Your task to perform on an android device: Play the latest video from the Wall Street Journal Image 0: 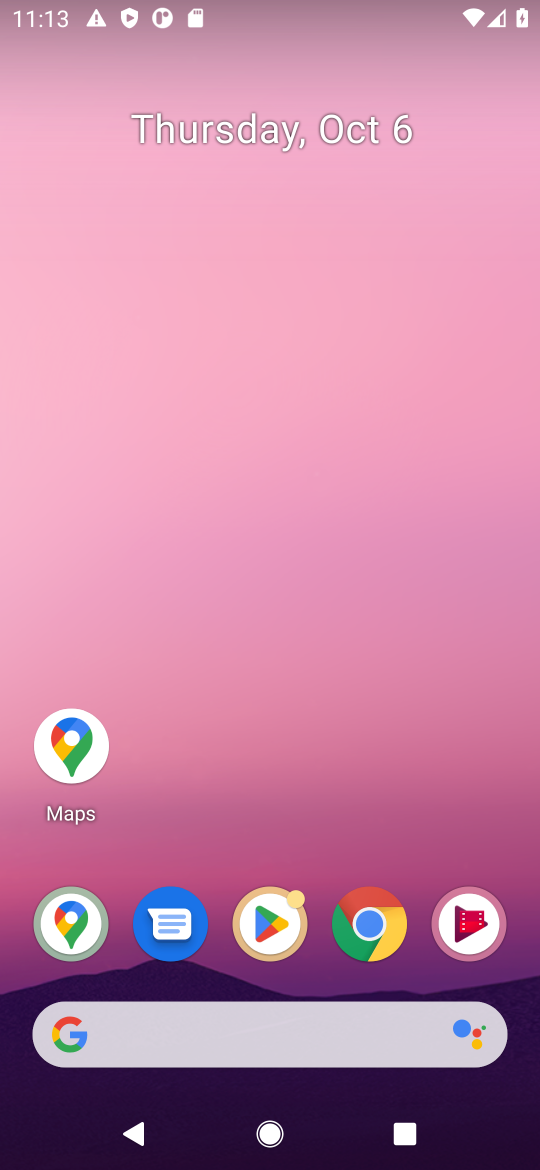
Step 0: click (365, 930)
Your task to perform on an android device: Play the latest video from the Wall Street Journal Image 1: 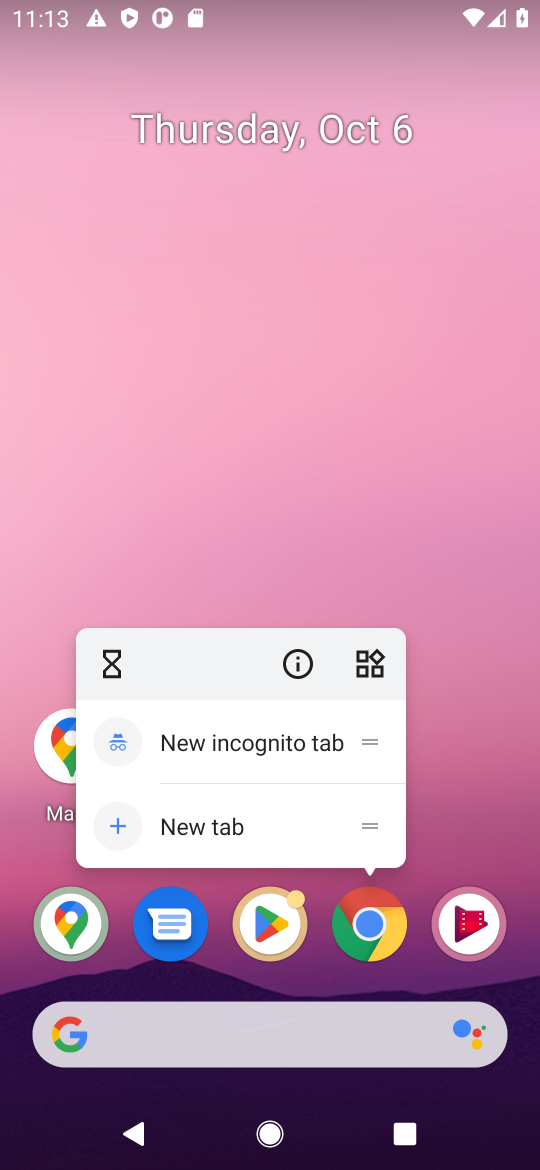
Step 1: click (365, 930)
Your task to perform on an android device: Play the latest video from the Wall Street Journal Image 2: 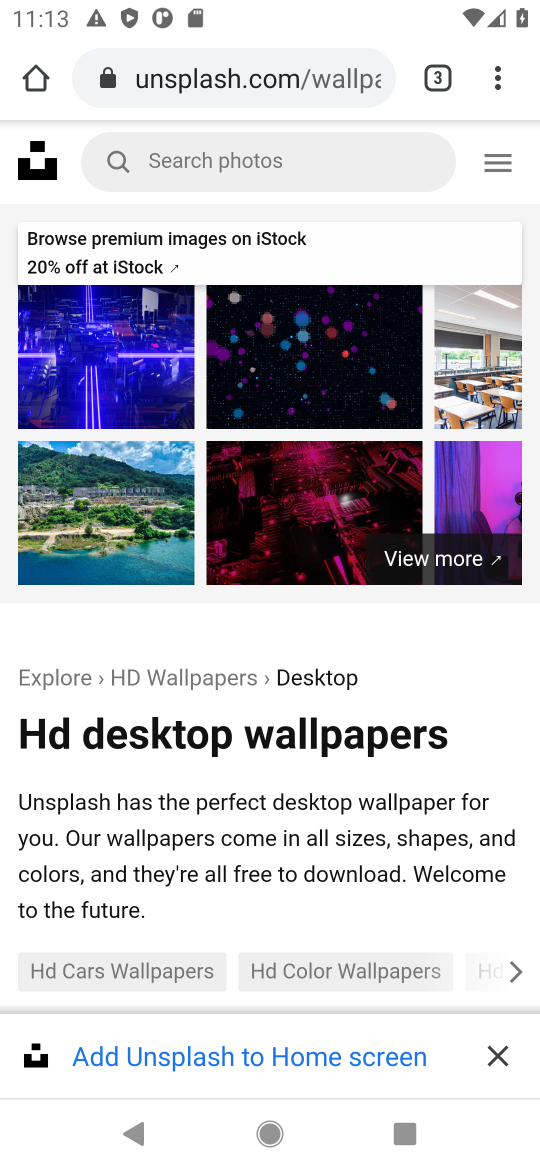
Step 2: press home button
Your task to perform on an android device: Play the latest video from the Wall Street Journal Image 3: 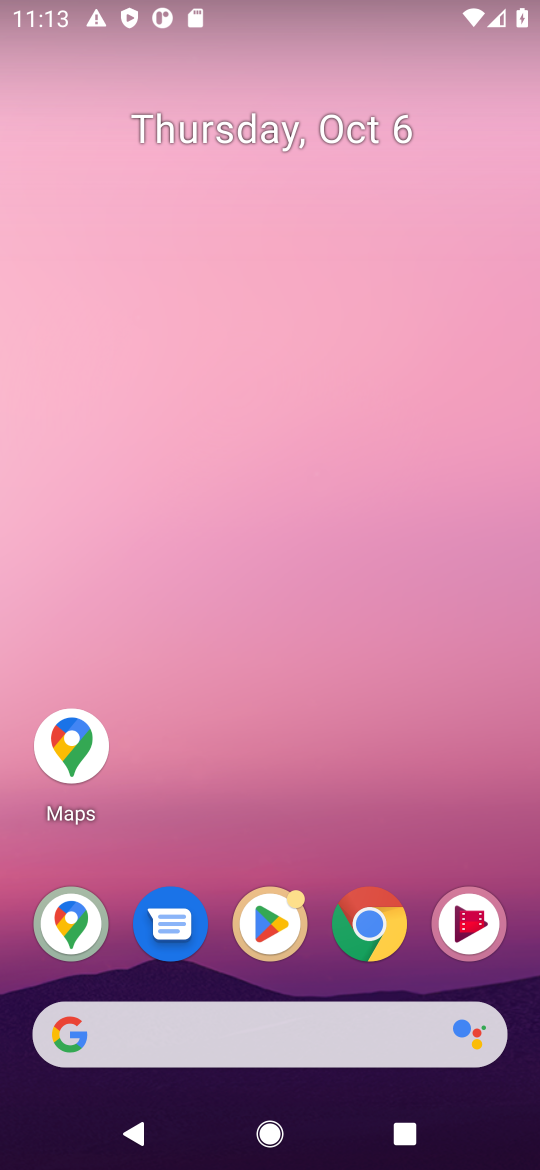
Step 3: drag from (260, 1030) to (429, 184)
Your task to perform on an android device: Play the latest video from the Wall Street Journal Image 4: 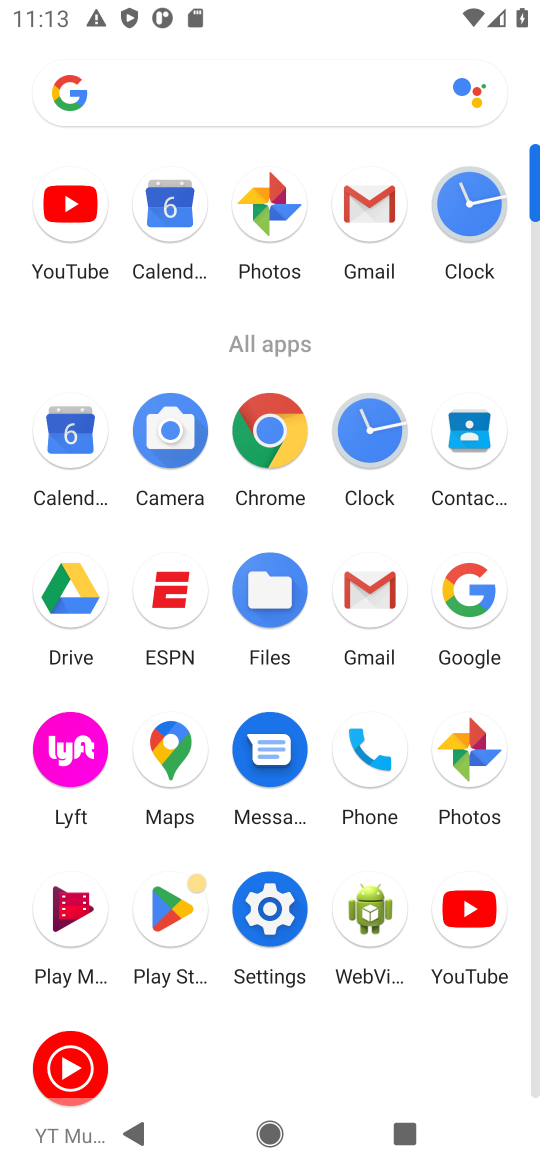
Step 4: click (459, 906)
Your task to perform on an android device: Play the latest video from the Wall Street Journal Image 5: 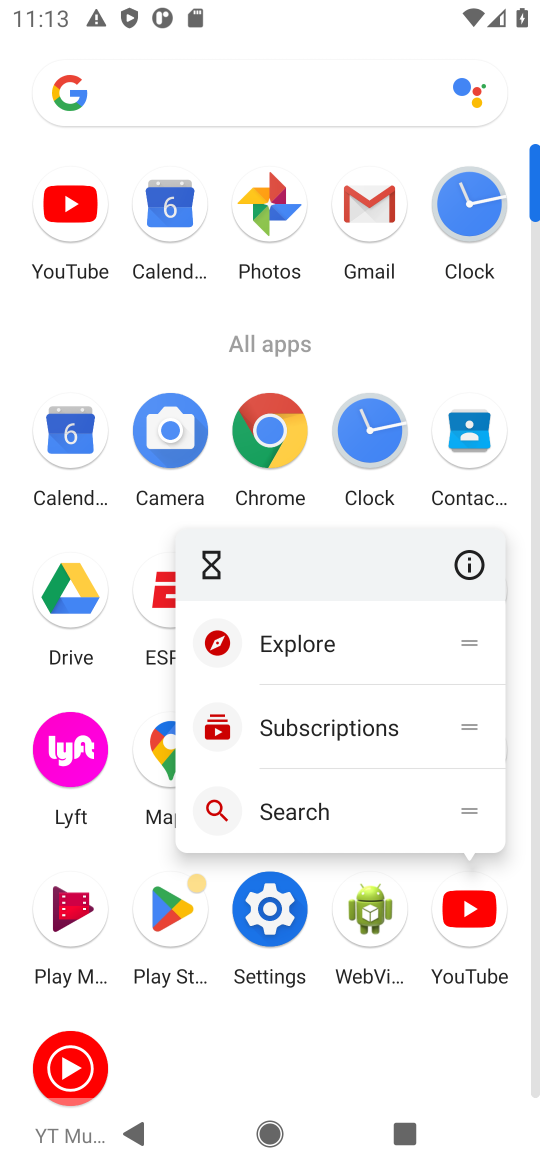
Step 5: click (469, 913)
Your task to perform on an android device: Play the latest video from the Wall Street Journal Image 6: 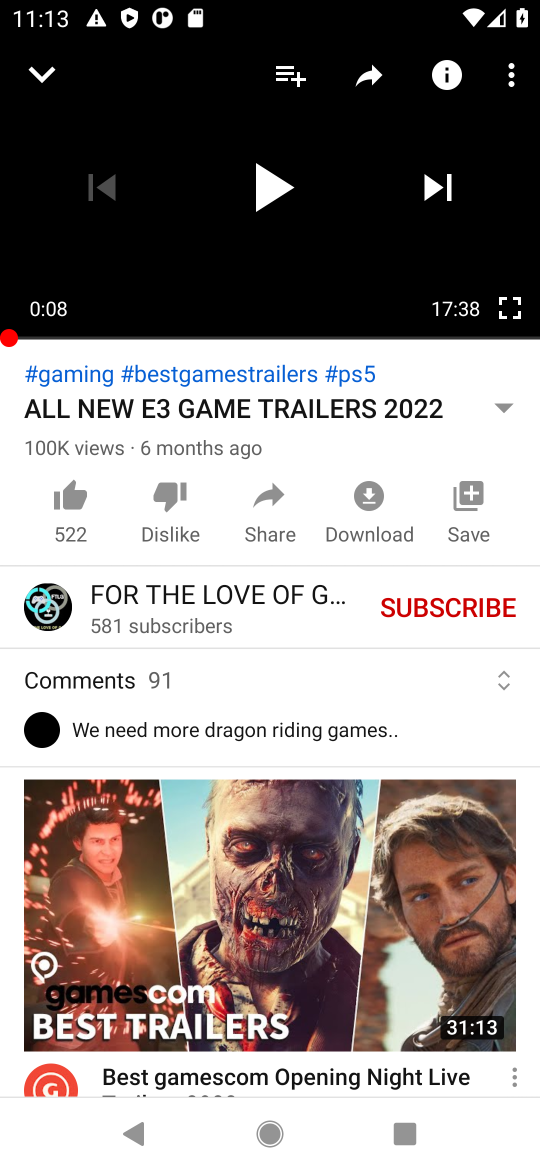
Step 6: drag from (200, 939) to (256, 1000)
Your task to perform on an android device: Play the latest video from the Wall Street Journal Image 7: 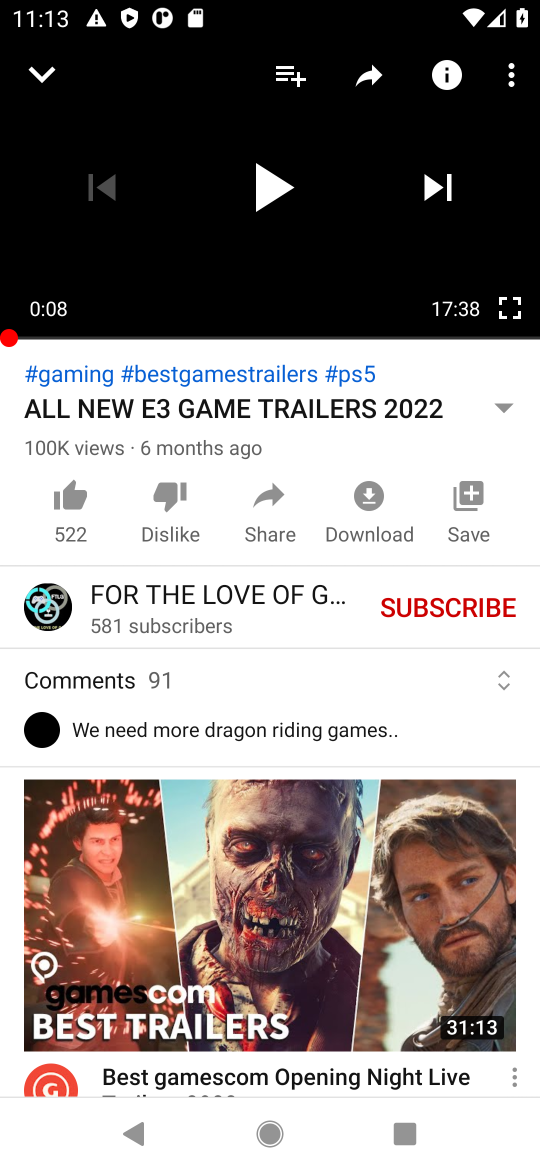
Step 7: press back button
Your task to perform on an android device: Play the latest video from the Wall Street Journal Image 8: 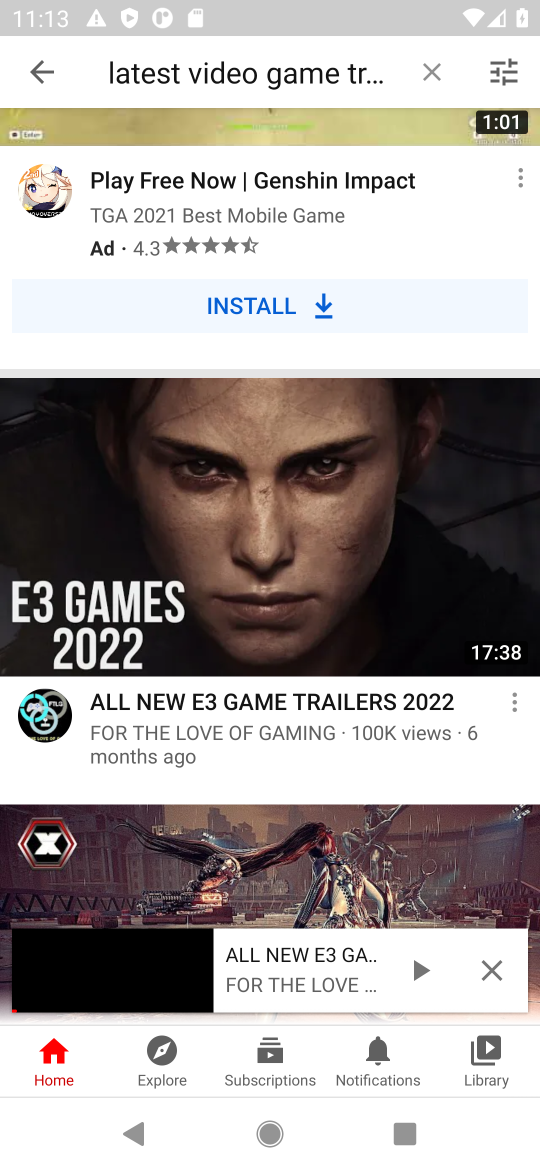
Step 8: click (53, 1062)
Your task to perform on an android device: Play the latest video from the Wall Street Journal Image 9: 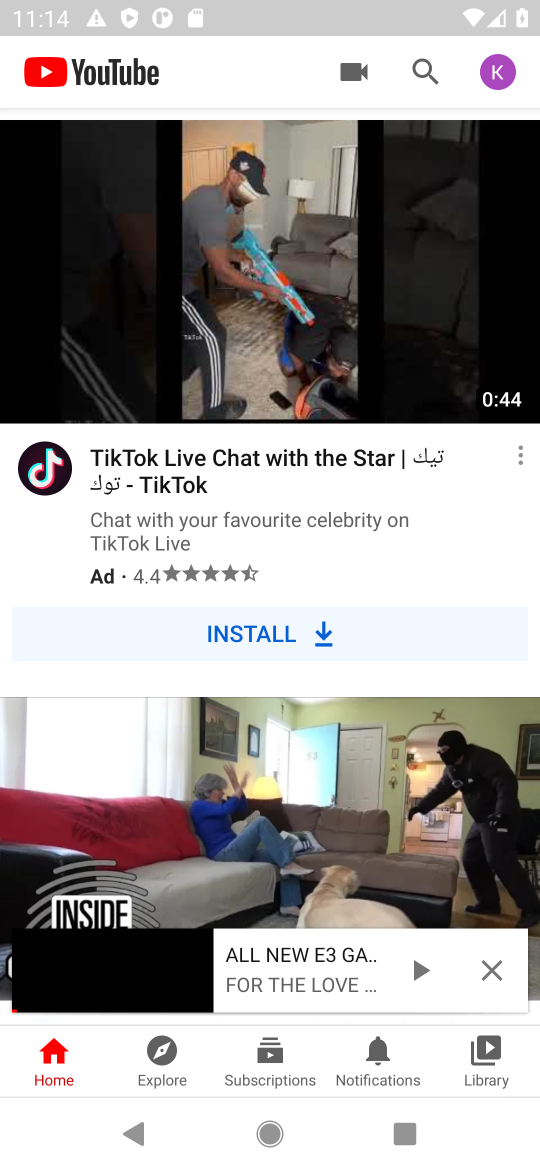
Step 9: click (417, 66)
Your task to perform on an android device: Play the latest video from the Wall Street Journal Image 10: 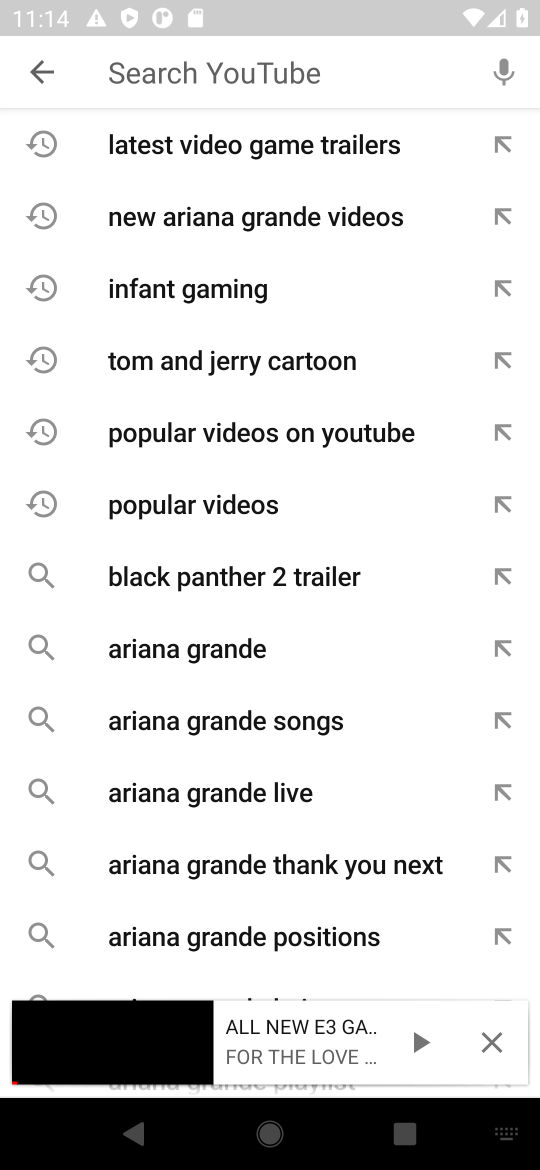
Step 10: click (493, 1038)
Your task to perform on an android device: Play the latest video from the Wall Street Journal Image 11: 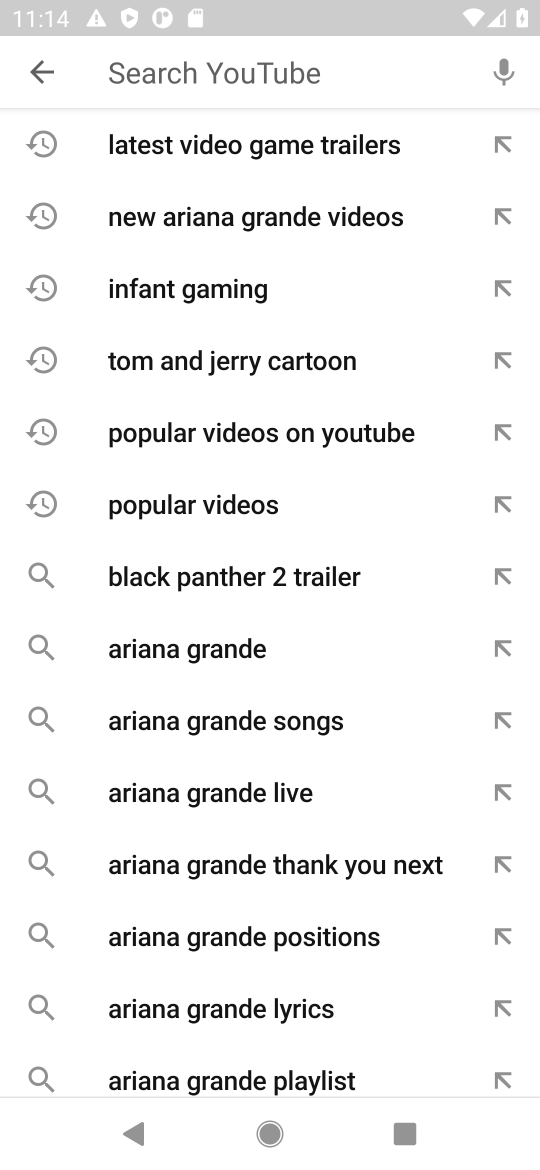
Step 11: type "latest video from the Wall Street Journal"
Your task to perform on an android device: Play the latest video from the Wall Street Journal Image 12: 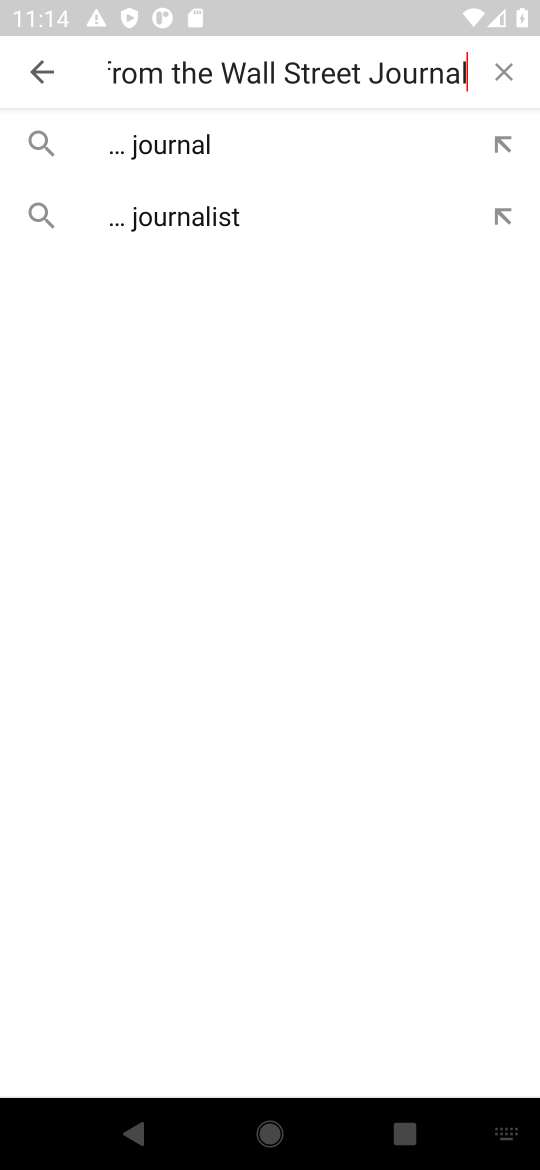
Step 12: click (190, 143)
Your task to perform on an android device: Play the latest video from the Wall Street Journal Image 13: 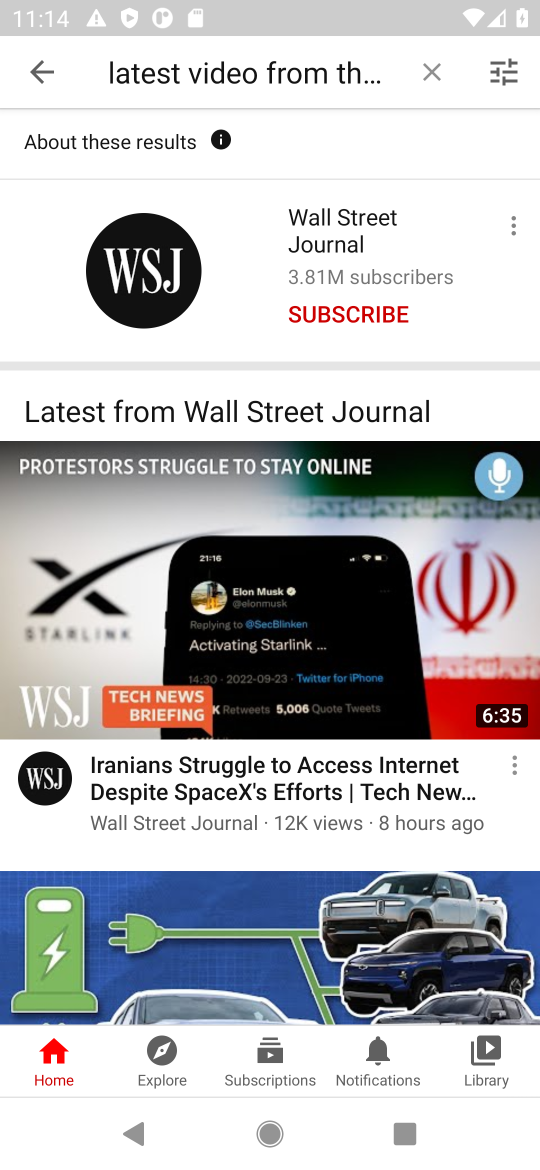
Step 13: task complete